Your task to perform on an android device: toggle location history Image 0: 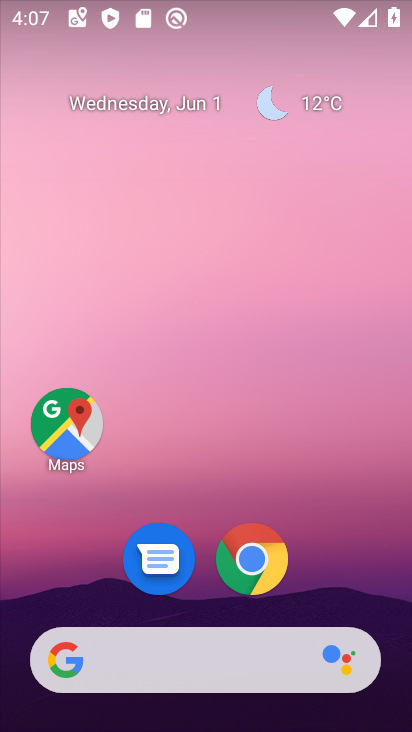
Step 0: drag from (307, 555) to (302, 58)
Your task to perform on an android device: toggle location history Image 1: 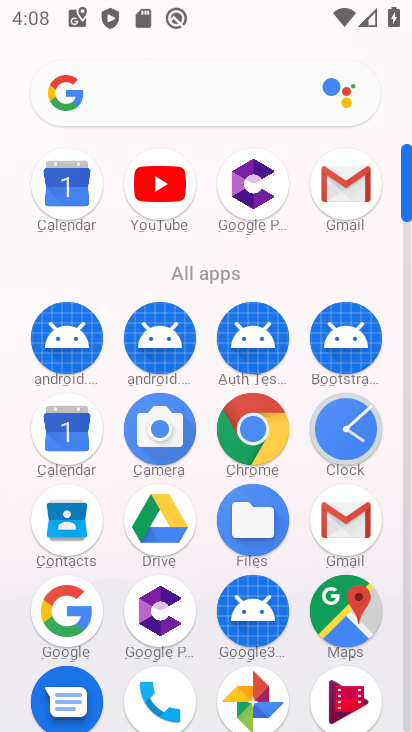
Step 1: drag from (291, 574) to (273, 65)
Your task to perform on an android device: toggle location history Image 2: 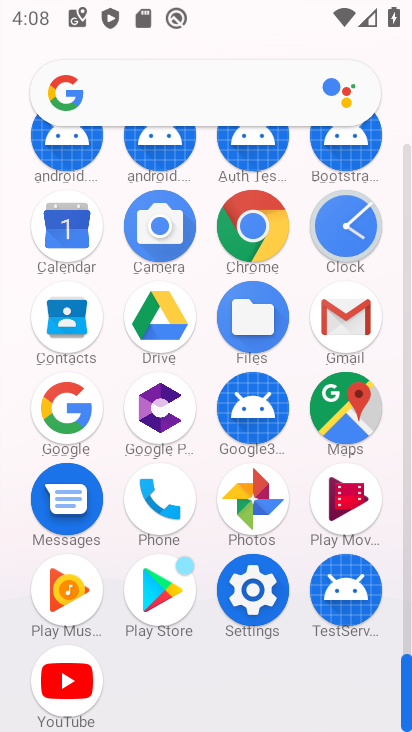
Step 2: click (242, 594)
Your task to perform on an android device: toggle location history Image 3: 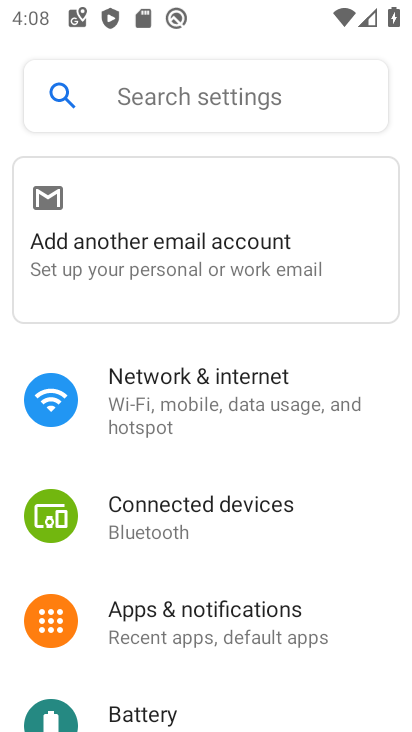
Step 3: drag from (185, 671) to (161, 318)
Your task to perform on an android device: toggle location history Image 4: 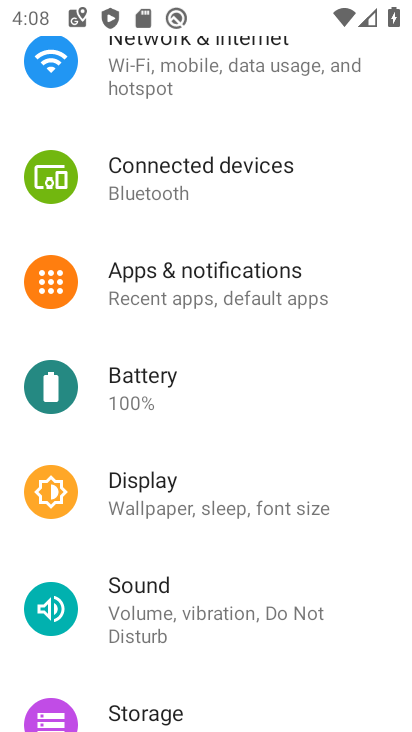
Step 4: drag from (171, 657) to (192, 360)
Your task to perform on an android device: toggle location history Image 5: 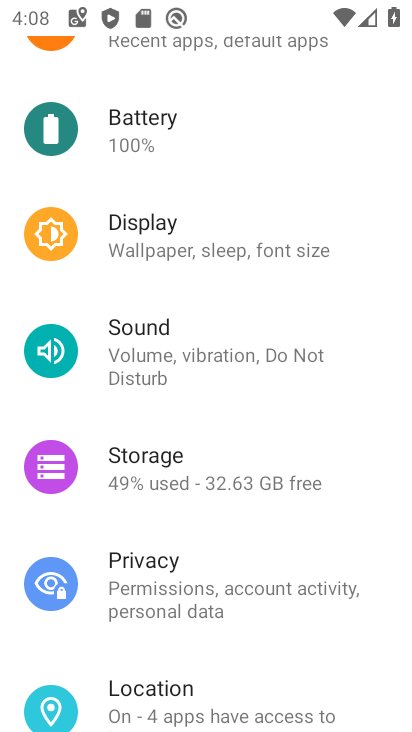
Step 5: click (183, 692)
Your task to perform on an android device: toggle location history Image 6: 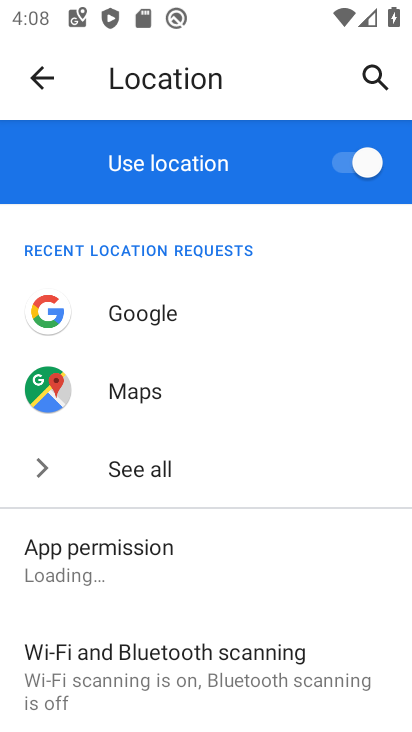
Step 6: drag from (216, 697) to (245, 346)
Your task to perform on an android device: toggle location history Image 7: 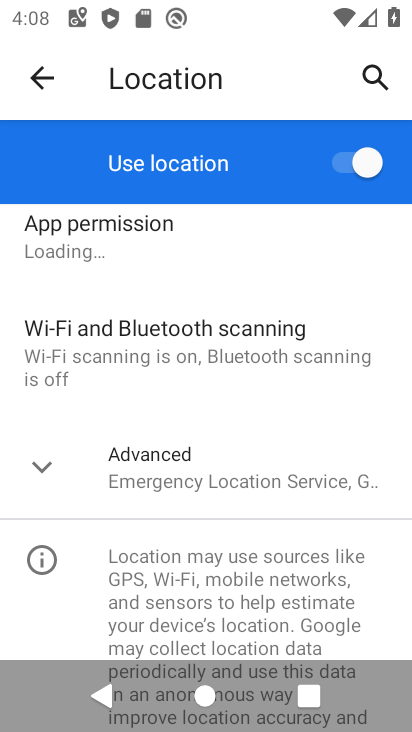
Step 7: click (164, 483)
Your task to perform on an android device: toggle location history Image 8: 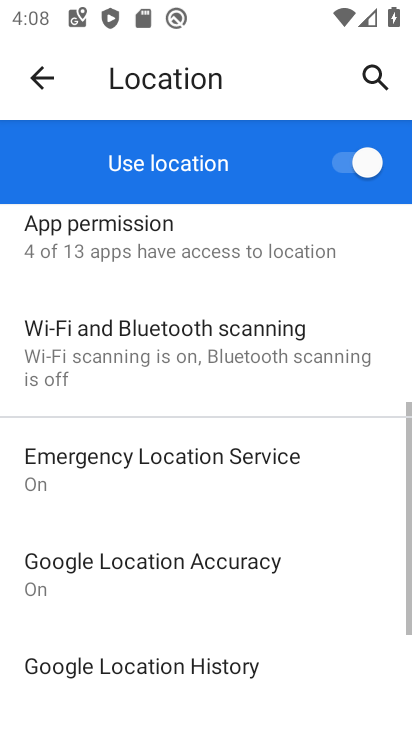
Step 8: click (184, 664)
Your task to perform on an android device: toggle location history Image 9: 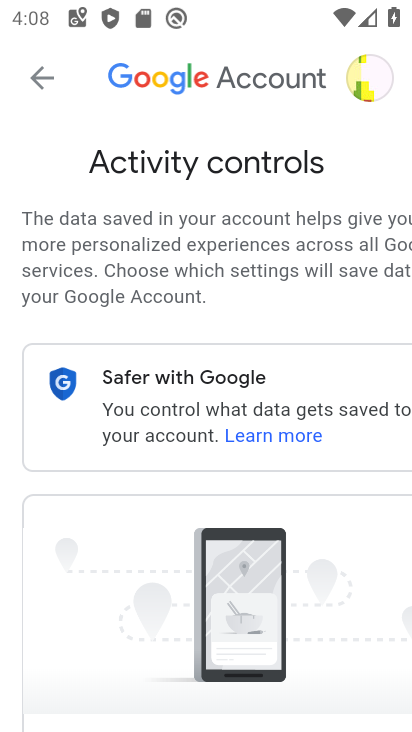
Step 9: drag from (223, 639) to (228, 134)
Your task to perform on an android device: toggle location history Image 10: 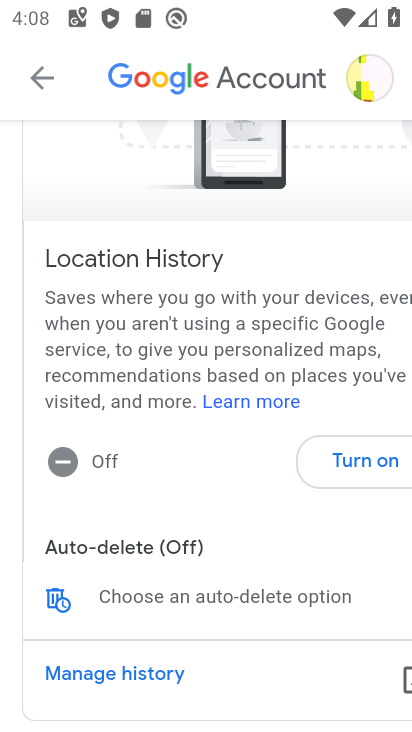
Step 10: click (371, 464)
Your task to perform on an android device: toggle location history Image 11: 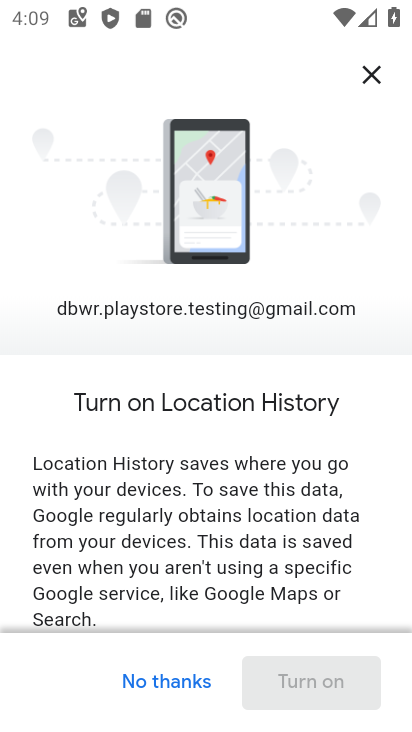
Step 11: drag from (245, 560) to (240, 85)
Your task to perform on an android device: toggle location history Image 12: 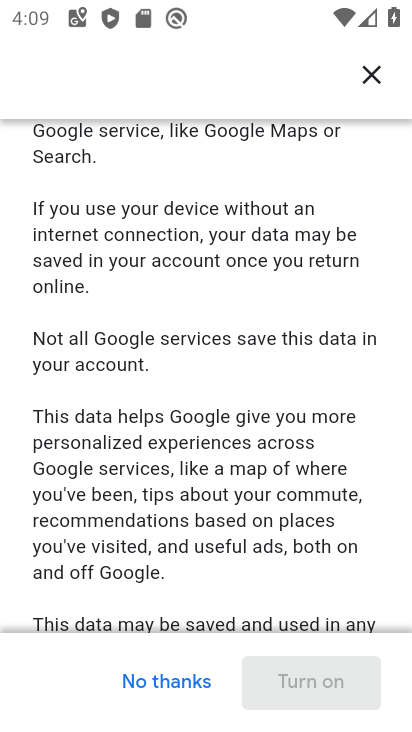
Step 12: drag from (278, 550) to (262, 87)
Your task to perform on an android device: toggle location history Image 13: 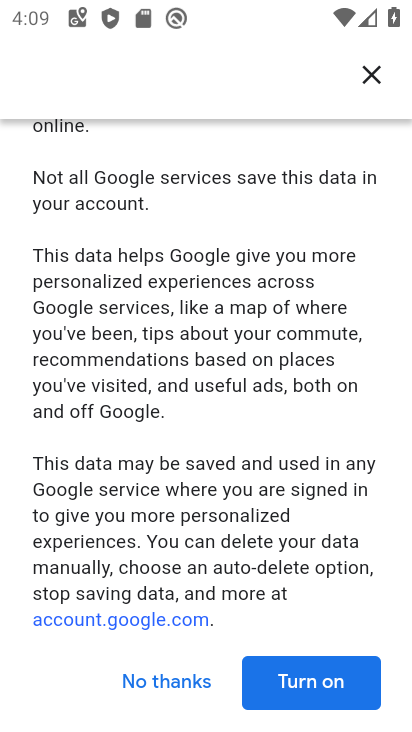
Step 13: click (319, 690)
Your task to perform on an android device: toggle location history Image 14: 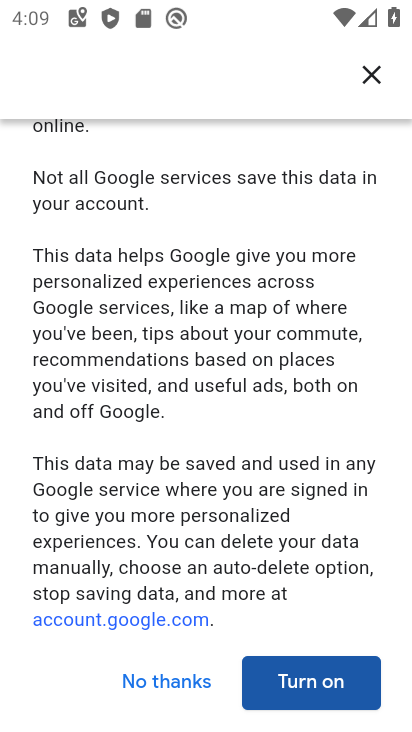
Step 14: click (320, 685)
Your task to perform on an android device: toggle location history Image 15: 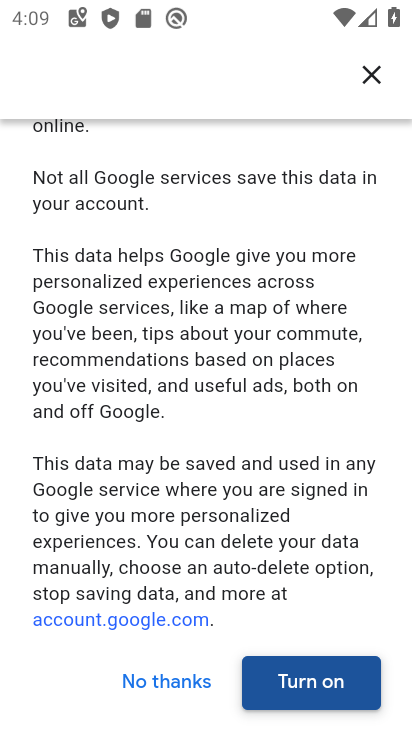
Step 15: click (320, 685)
Your task to perform on an android device: toggle location history Image 16: 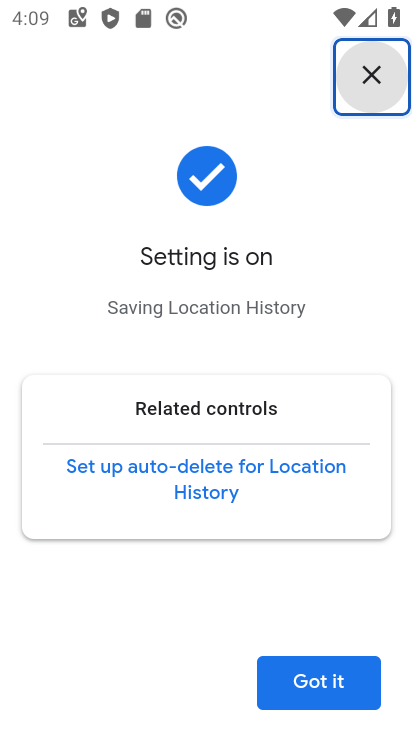
Step 16: task complete